Your task to perform on an android device: toggle translation in the chrome app Image 0: 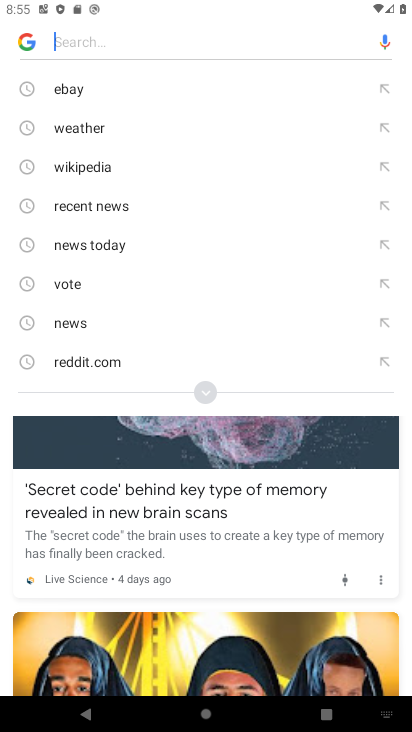
Step 0: drag from (346, 346) to (403, 260)
Your task to perform on an android device: toggle translation in the chrome app Image 1: 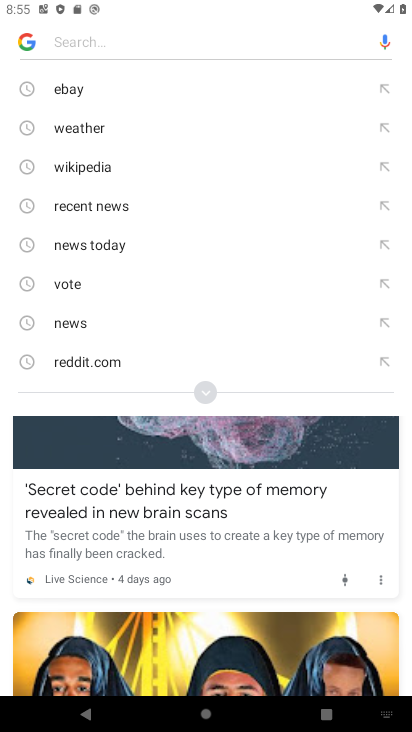
Step 1: drag from (259, 403) to (330, 161)
Your task to perform on an android device: toggle translation in the chrome app Image 2: 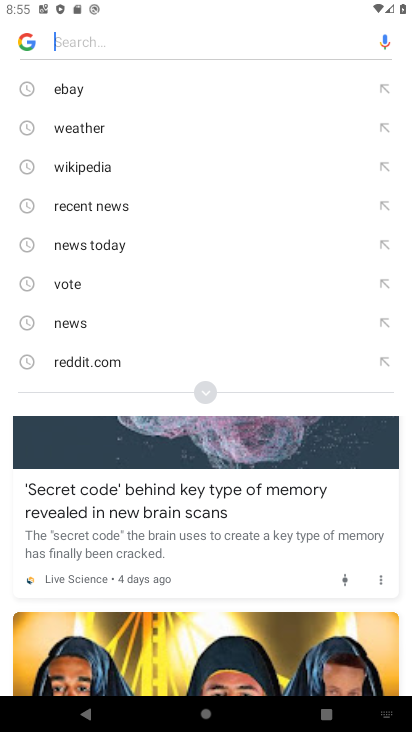
Step 2: drag from (279, 309) to (352, 83)
Your task to perform on an android device: toggle translation in the chrome app Image 3: 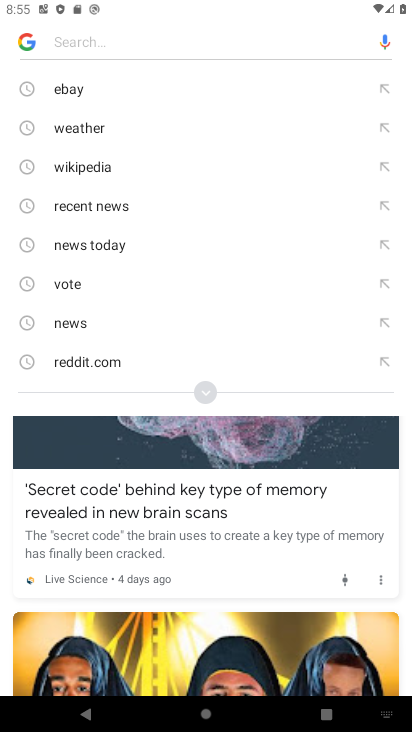
Step 3: press back button
Your task to perform on an android device: toggle translation in the chrome app Image 4: 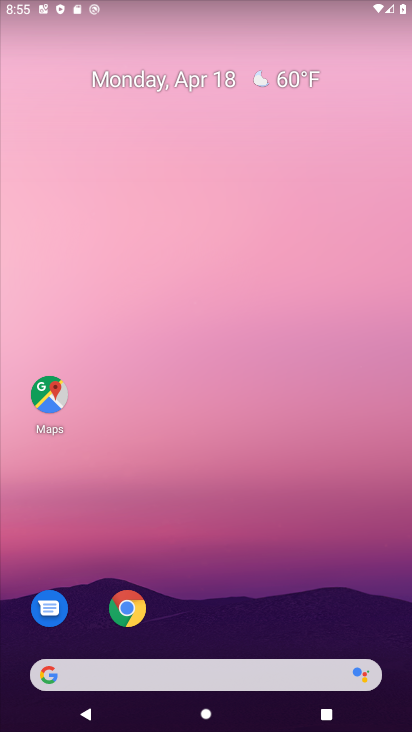
Step 4: click (124, 611)
Your task to perform on an android device: toggle translation in the chrome app Image 5: 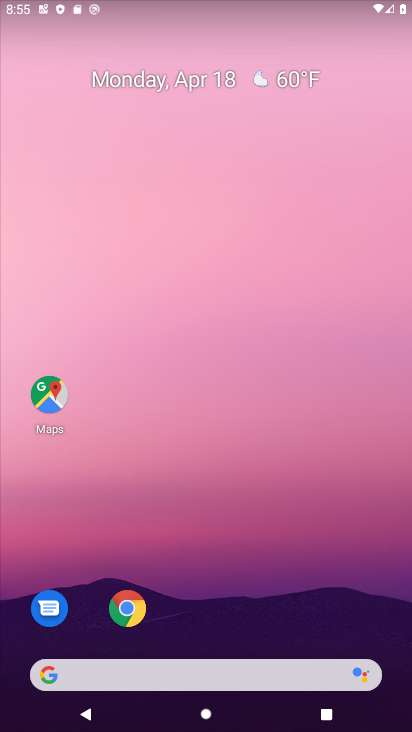
Step 5: click (124, 611)
Your task to perform on an android device: toggle translation in the chrome app Image 6: 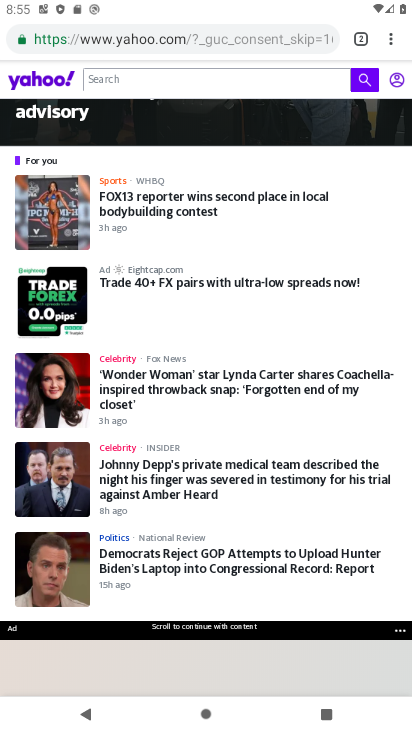
Step 6: drag from (388, 39) to (276, 517)
Your task to perform on an android device: toggle translation in the chrome app Image 7: 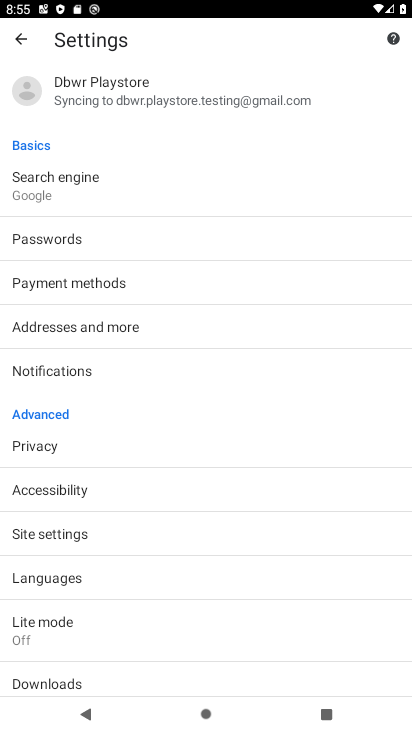
Step 7: drag from (166, 589) to (255, 216)
Your task to perform on an android device: toggle translation in the chrome app Image 8: 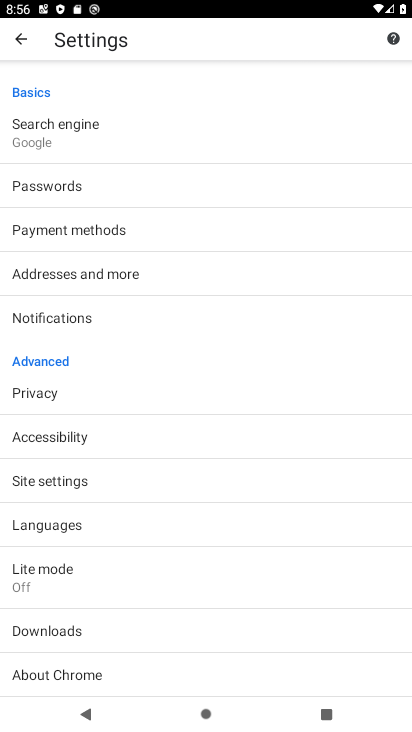
Step 8: click (44, 528)
Your task to perform on an android device: toggle translation in the chrome app Image 9: 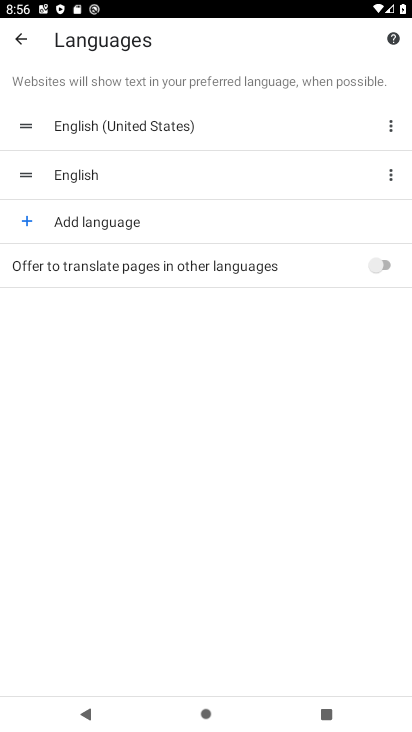
Step 9: click (269, 252)
Your task to perform on an android device: toggle translation in the chrome app Image 10: 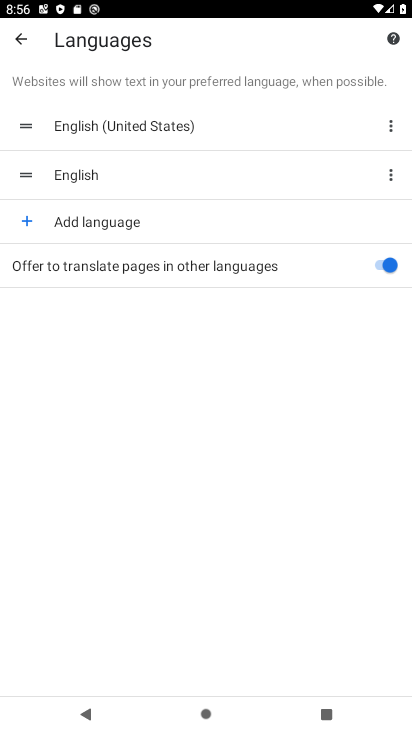
Step 10: task complete